Your task to perform on an android device: When is my next appointment? Image 0: 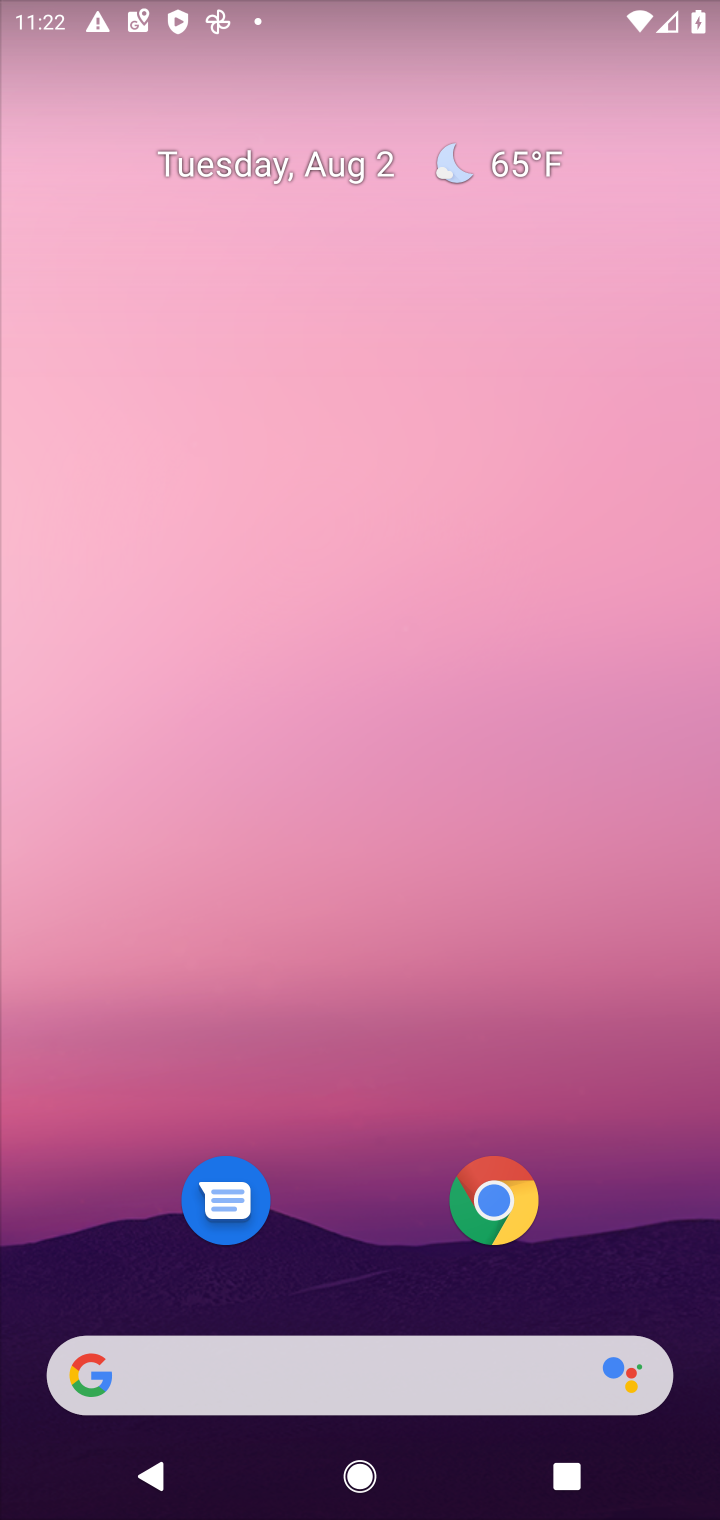
Step 0: drag from (657, 1304) to (586, 231)
Your task to perform on an android device: When is my next appointment? Image 1: 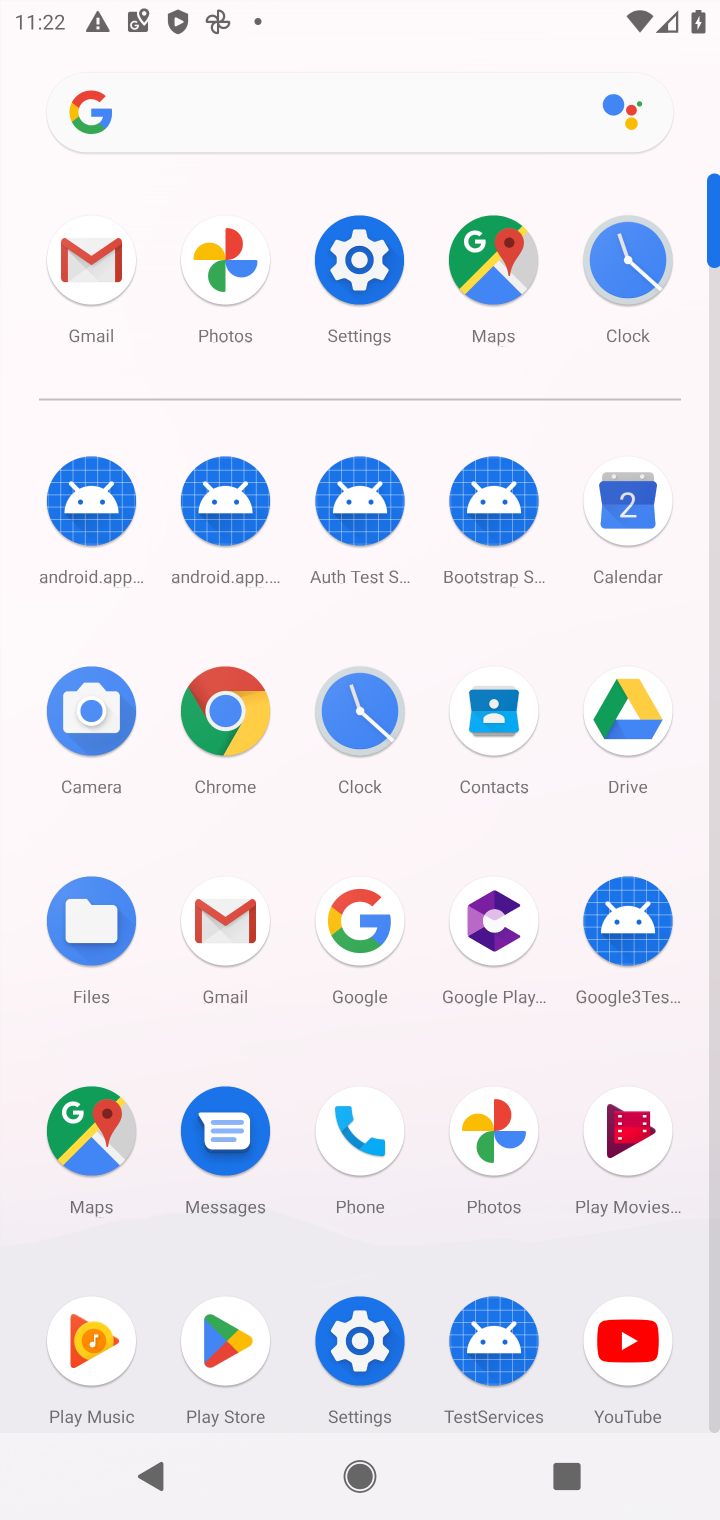
Step 1: click (632, 506)
Your task to perform on an android device: When is my next appointment? Image 2: 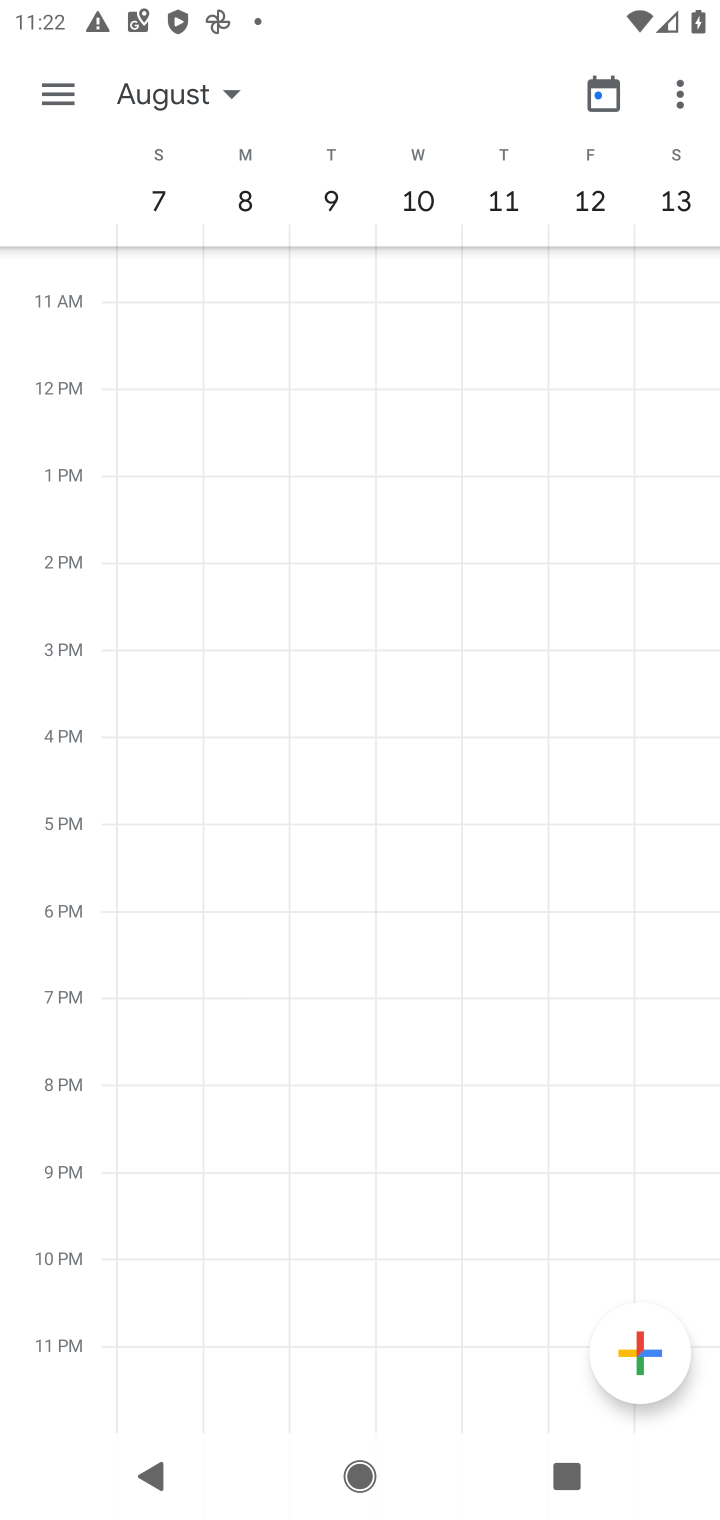
Step 2: click (71, 83)
Your task to perform on an android device: When is my next appointment? Image 3: 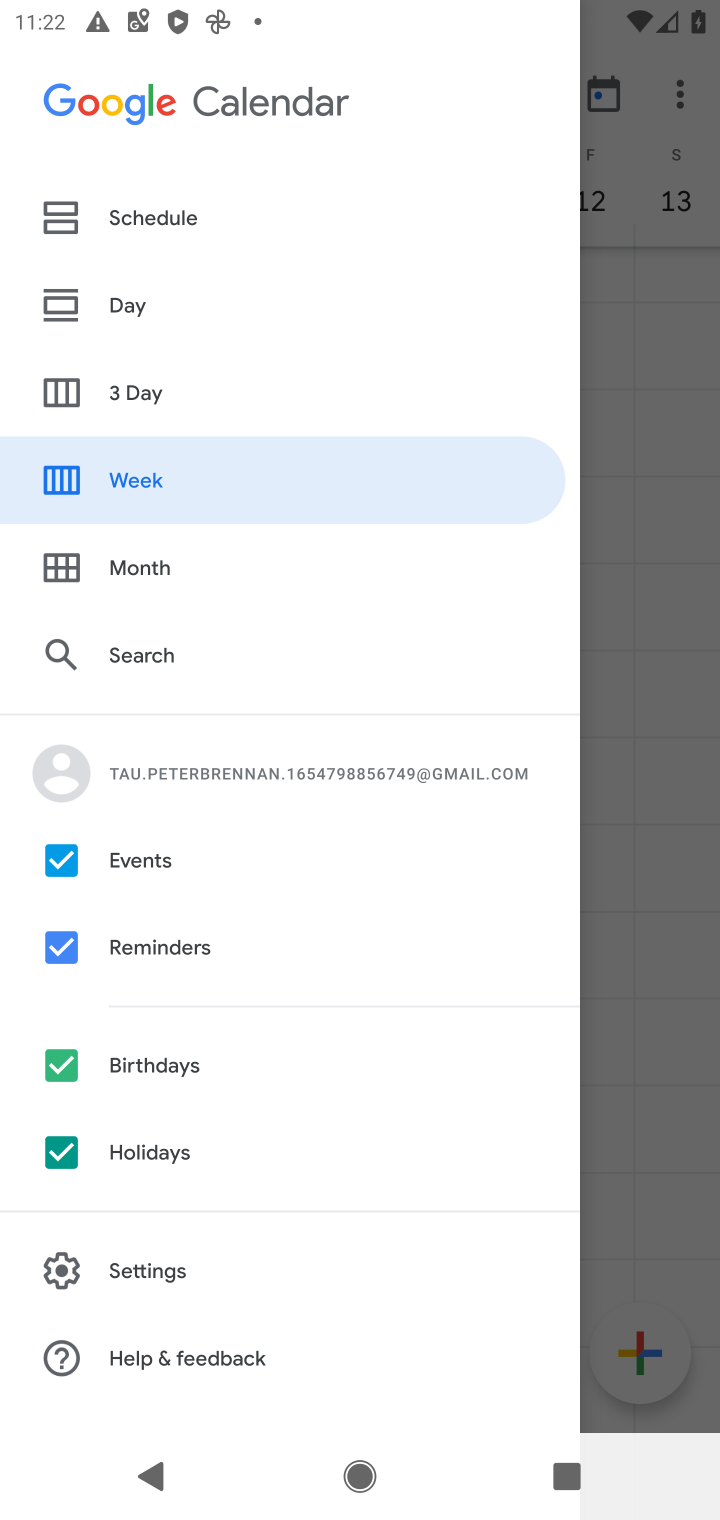
Step 3: click (145, 211)
Your task to perform on an android device: When is my next appointment? Image 4: 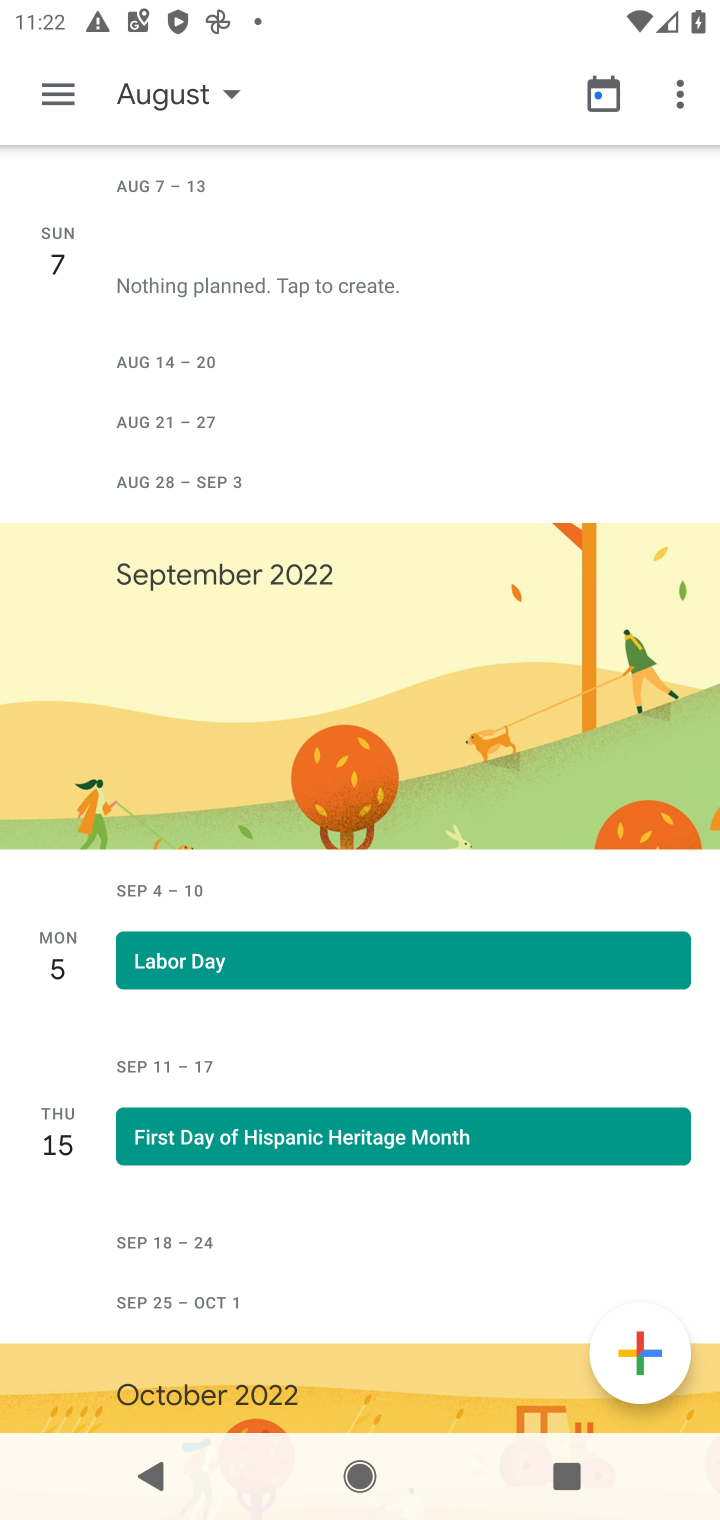
Step 4: task complete